Your task to perform on an android device: open app "Roku - Official Remote Control" Image 0: 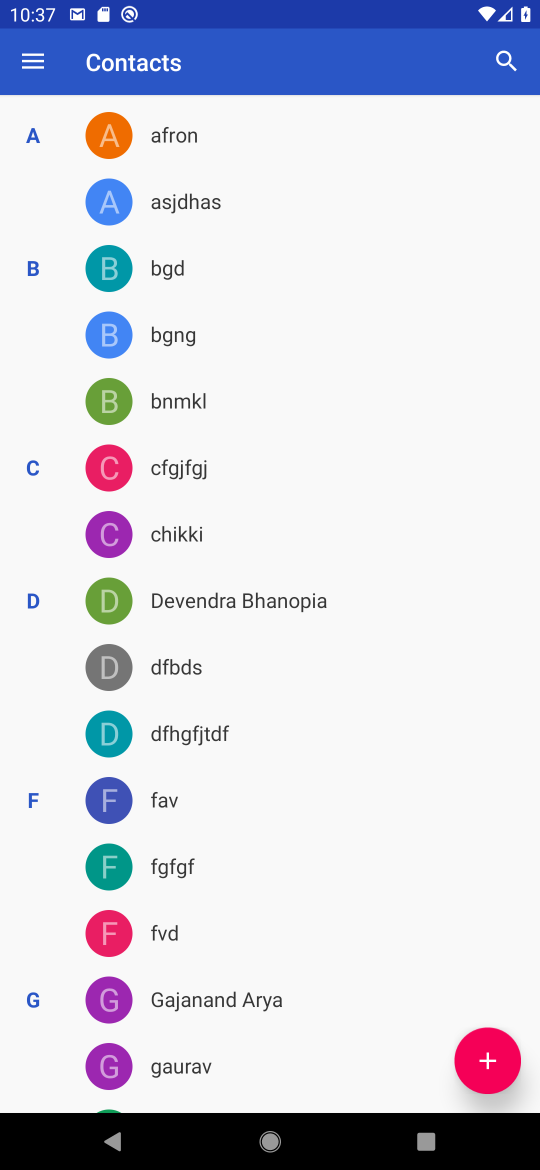
Step 0: press home button
Your task to perform on an android device: open app "Roku - Official Remote Control" Image 1: 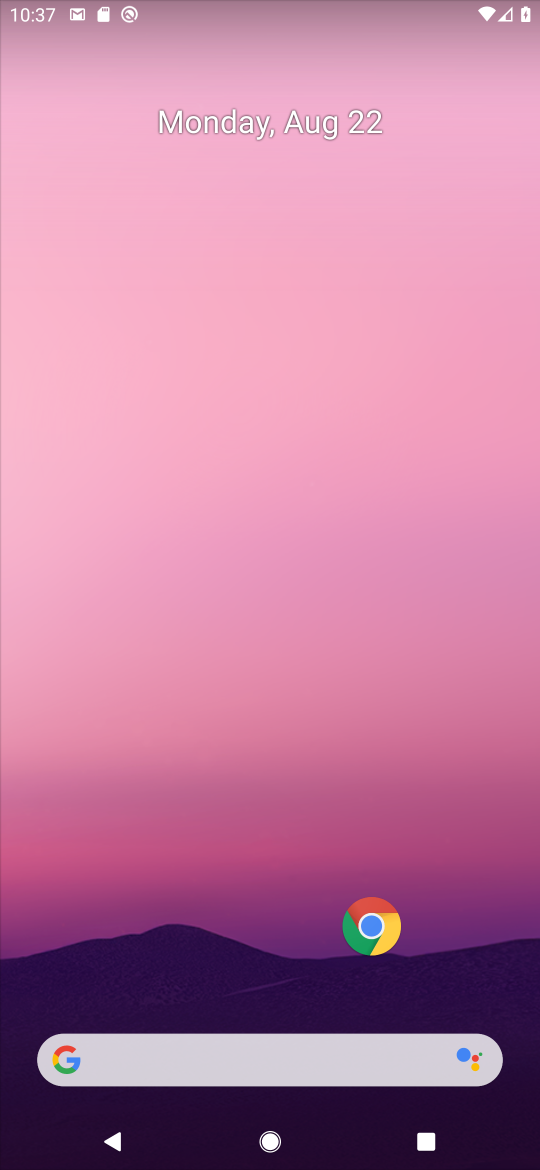
Step 1: drag from (342, 1043) to (347, 16)
Your task to perform on an android device: open app "Roku - Official Remote Control" Image 2: 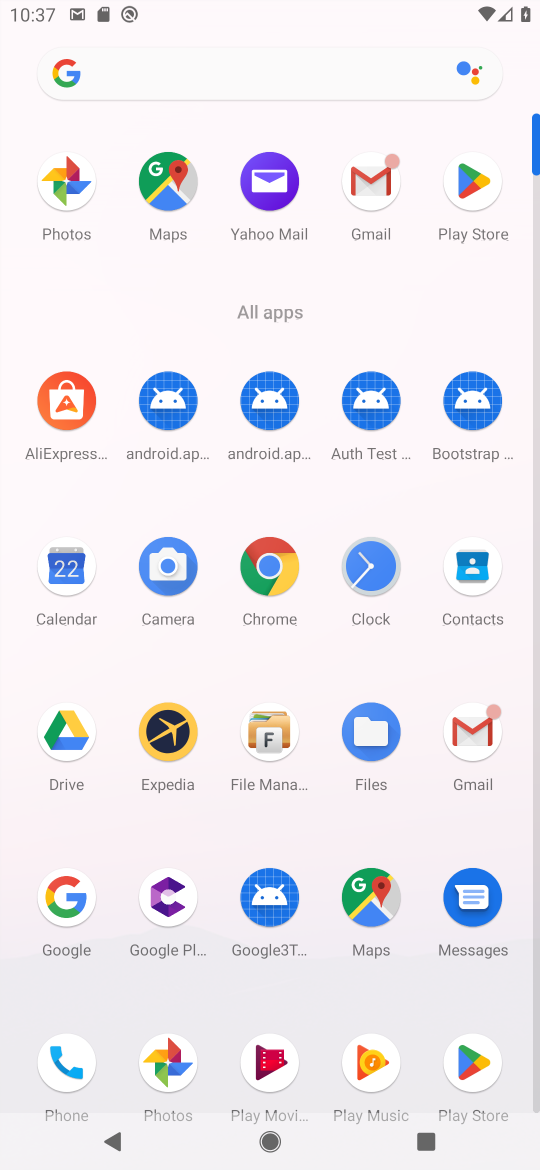
Step 2: click (463, 190)
Your task to perform on an android device: open app "Roku - Official Remote Control" Image 3: 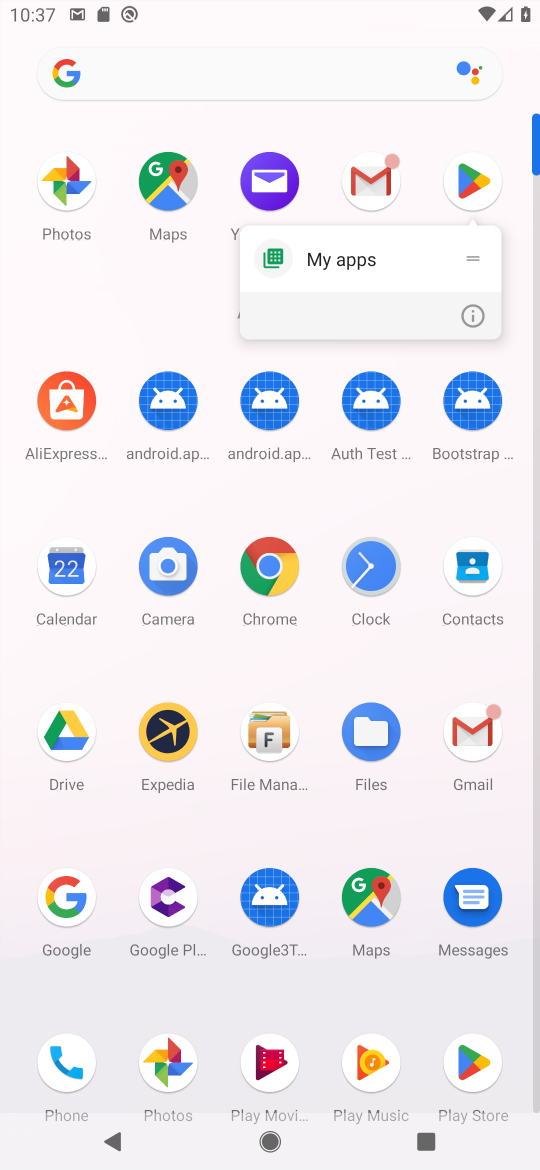
Step 3: click (465, 190)
Your task to perform on an android device: open app "Roku - Official Remote Control" Image 4: 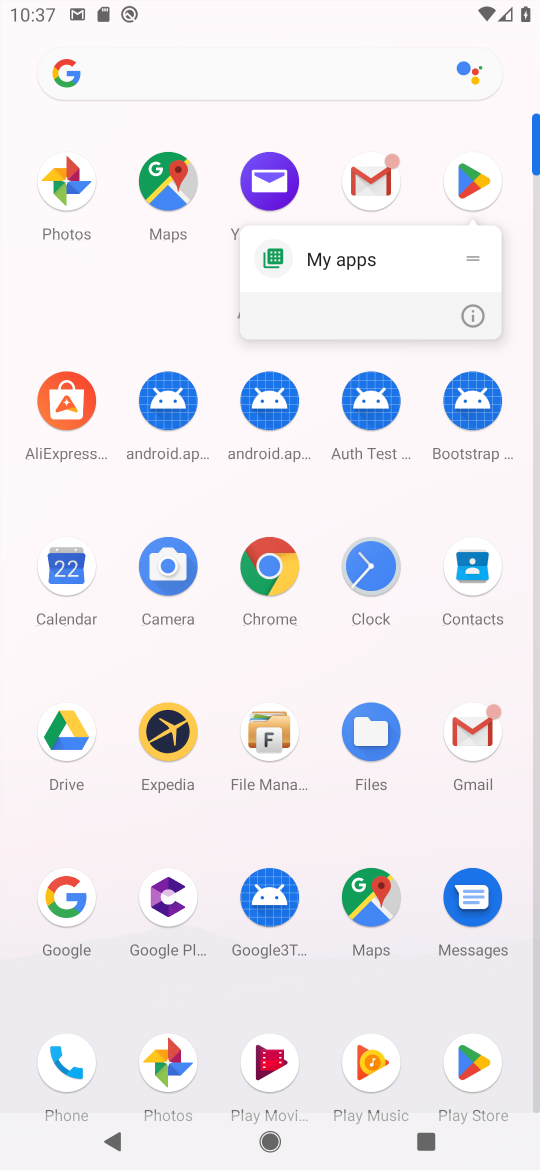
Step 4: click (465, 190)
Your task to perform on an android device: open app "Roku - Official Remote Control" Image 5: 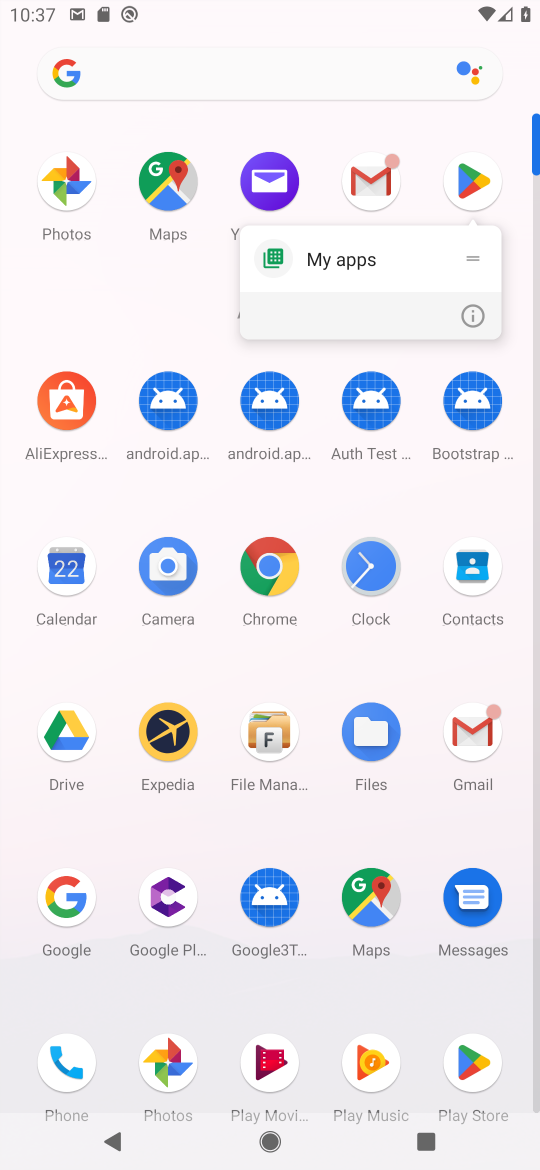
Step 5: click (465, 190)
Your task to perform on an android device: open app "Roku - Official Remote Control" Image 6: 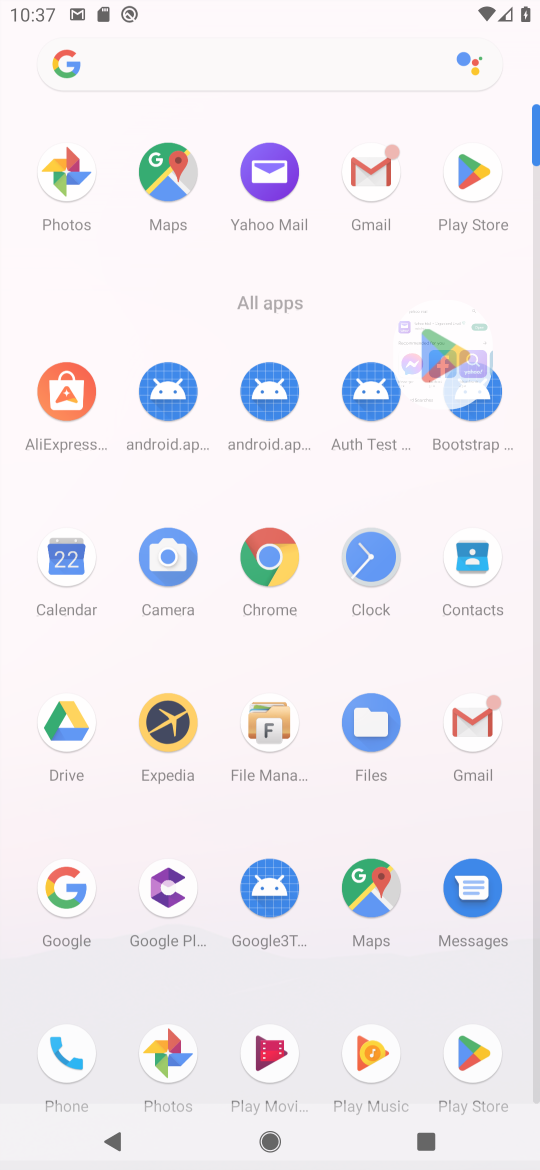
Step 6: click (465, 190)
Your task to perform on an android device: open app "Roku - Official Remote Control" Image 7: 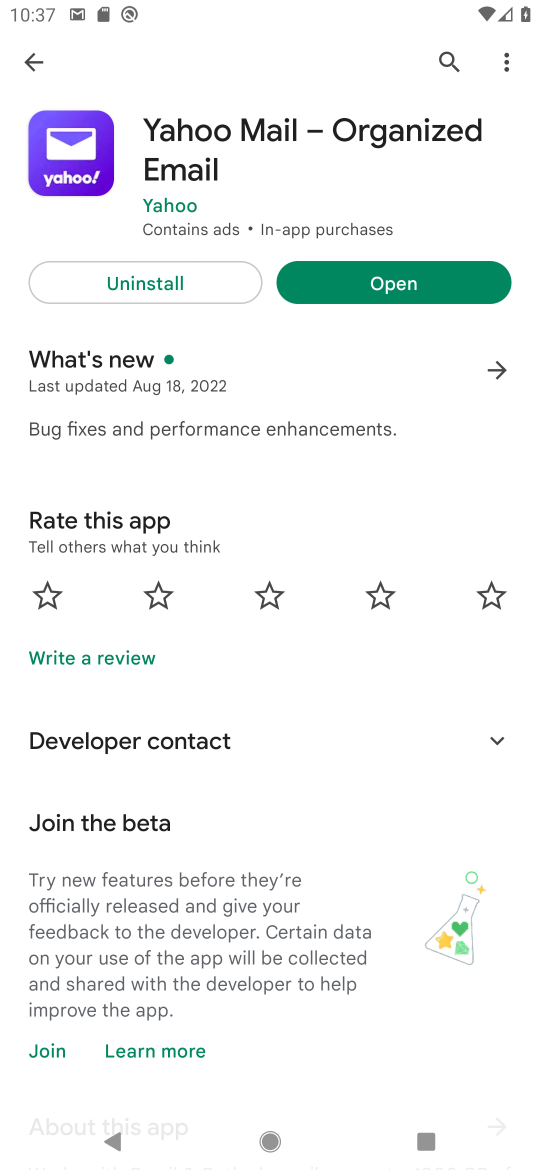
Step 7: press back button
Your task to perform on an android device: open app "Roku - Official Remote Control" Image 8: 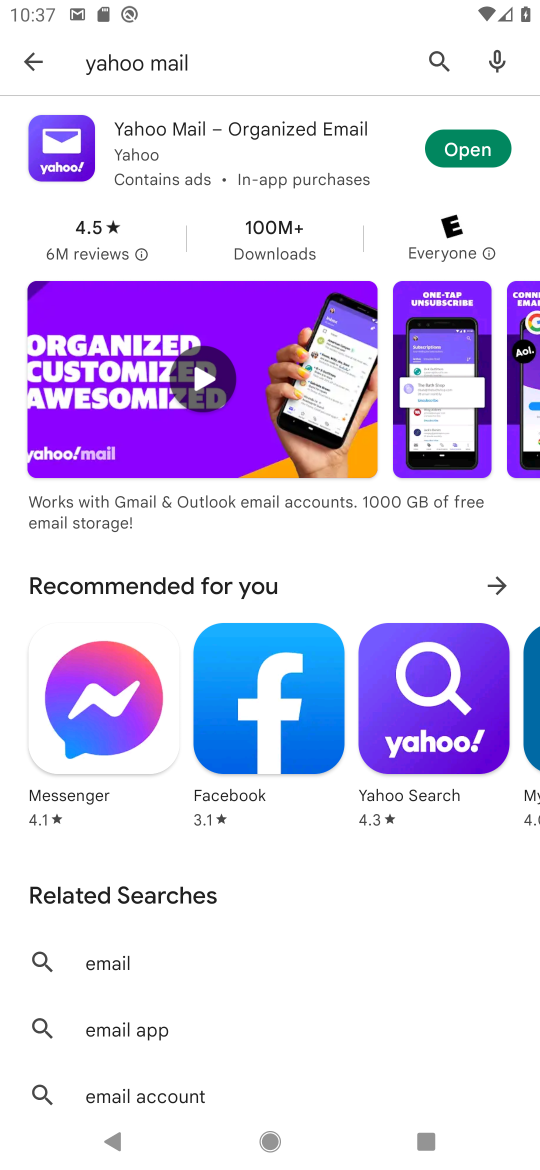
Step 8: press back button
Your task to perform on an android device: open app "Roku - Official Remote Control" Image 9: 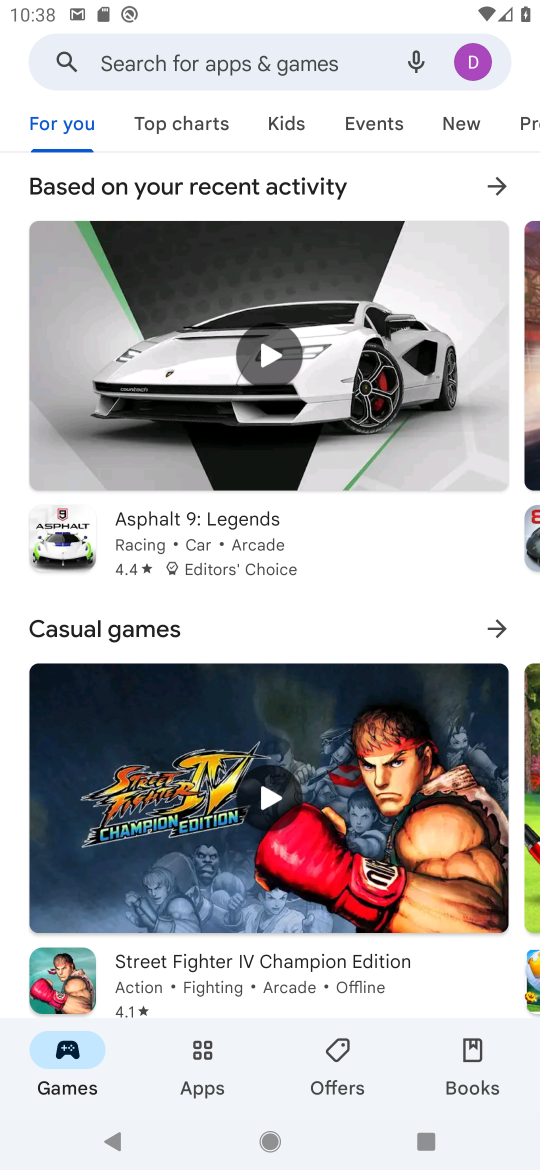
Step 9: click (289, 75)
Your task to perform on an android device: open app "Roku - Official Remote Control" Image 10: 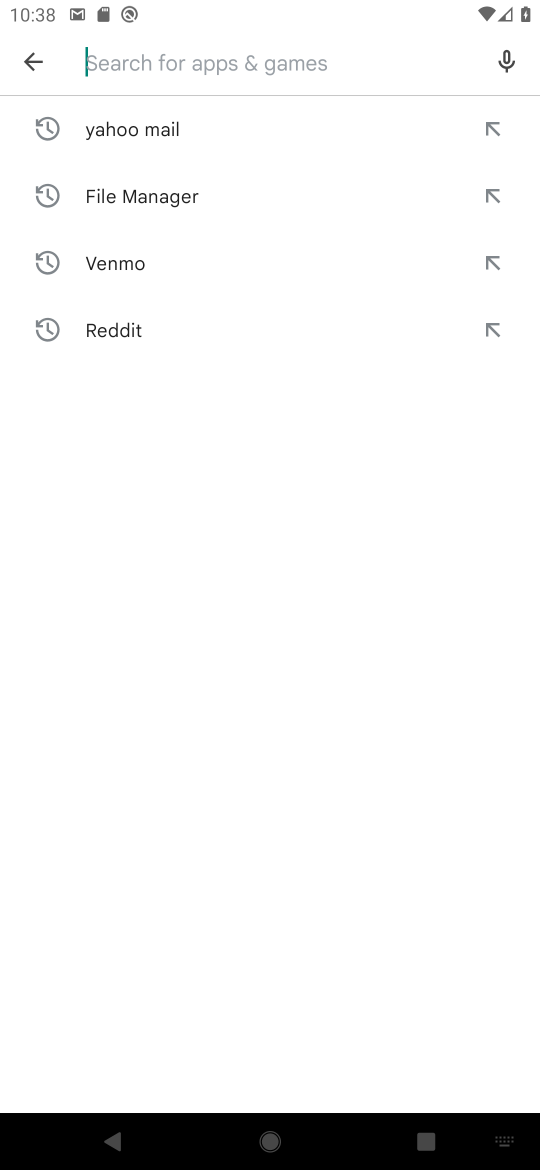
Step 10: type "Roku - Official Remote Contro"
Your task to perform on an android device: open app "Roku - Official Remote Control" Image 11: 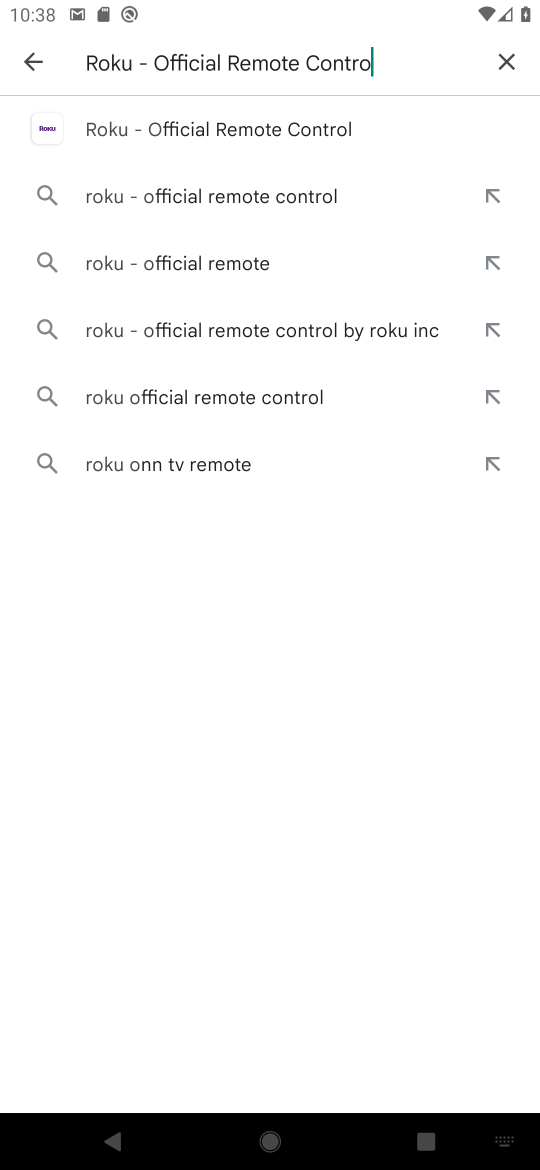
Step 11: press enter
Your task to perform on an android device: open app "Roku - Official Remote Control" Image 12: 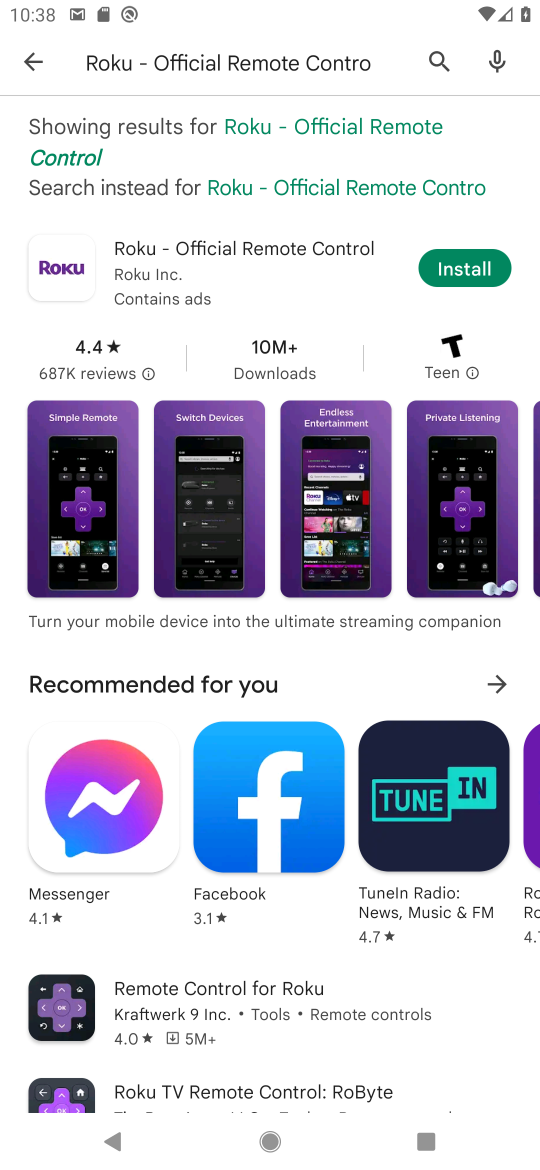
Step 12: task complete